Your task to perform on an android device: Go to Yahoo.com Image 0: 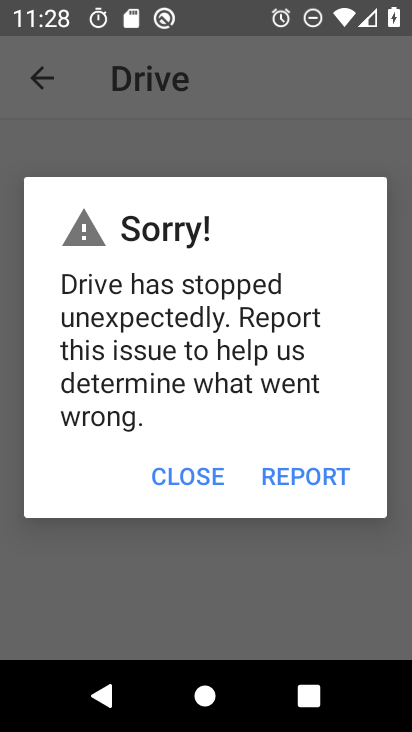
Step 0: press home button
Your task to perform on an android device: Go to Yahoo.com Image 1: 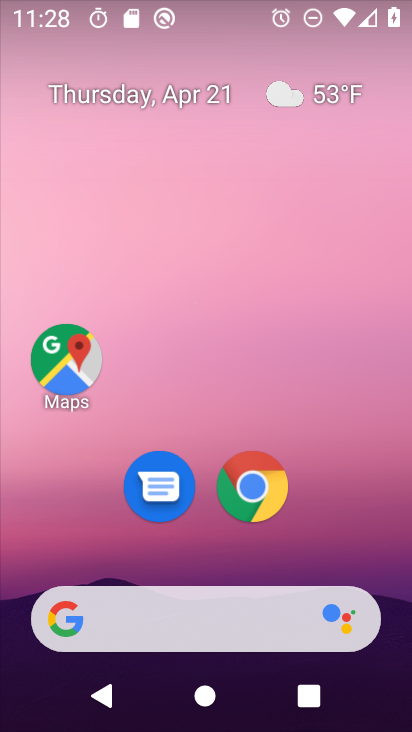
Step 1: drag from (392, 582) to (372, 165)
Your task to perform on an android device: Go to Yahoo.com Image 2: 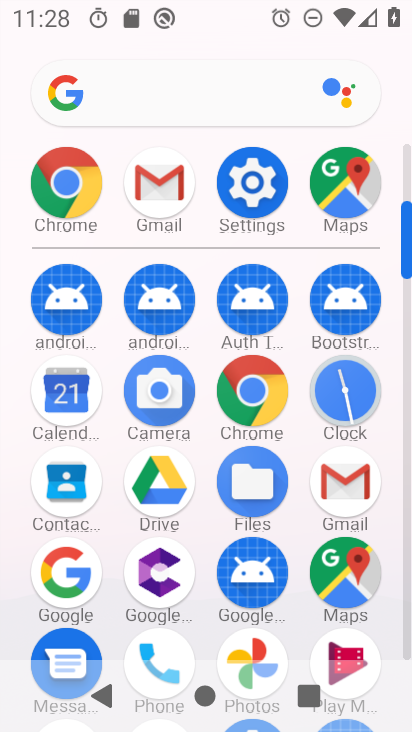
Step 2: click (64, 186)
Your task to perform on an android device: Go to Yahoo.com Image 3: 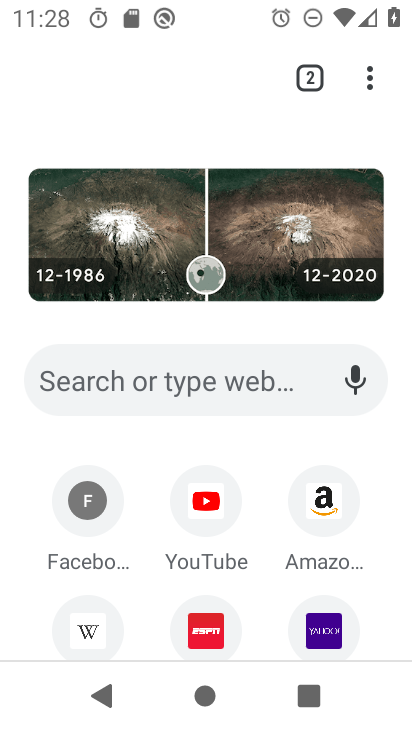
Step 3: click (66, 368)
Your task to perform on an android device: Go to Yahoo.com Image 4: 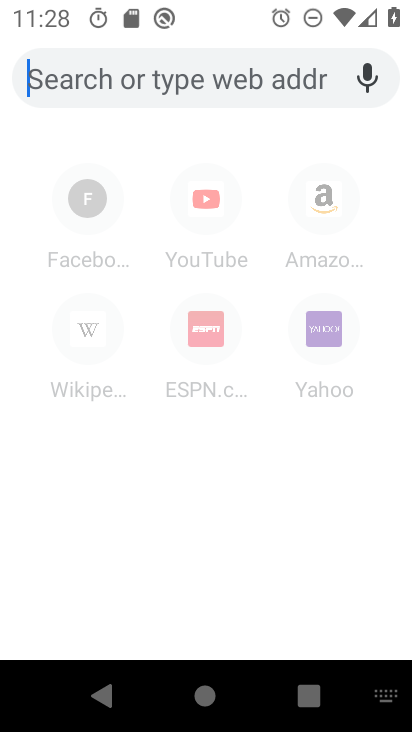
Step 4: type "Yahoo.com"
Your task to perform on an android device: Go to Yahoo.com Image 5: 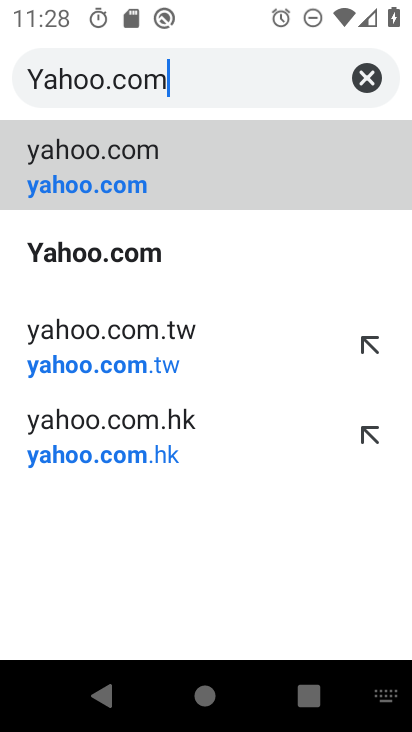
Step 5: click (77, 253)
Your task to perform on an android device: Go to Yahoo.com Image 6: 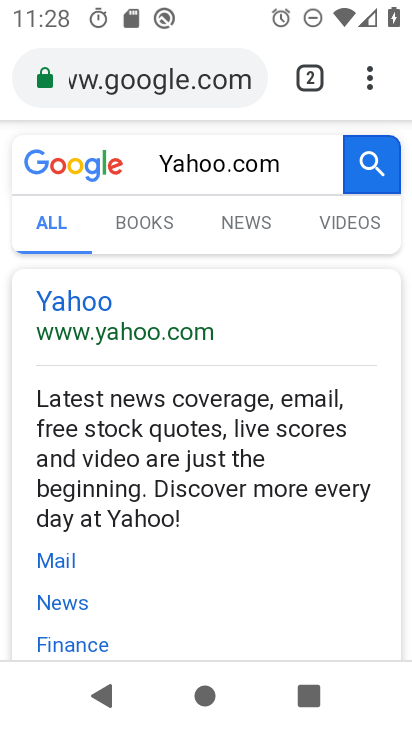
Step 6: task complete